Your task to perform on an android device: Search for the best selling books Image 0: 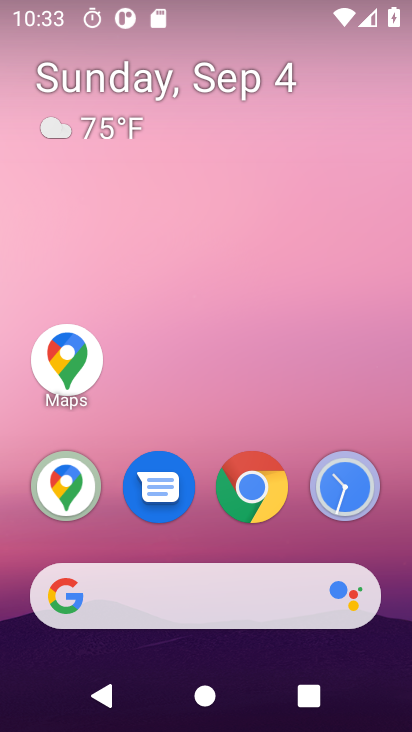
Step 0: click (78, 383)
Your task to perform on an android device: Search for the best selling books Image 1: 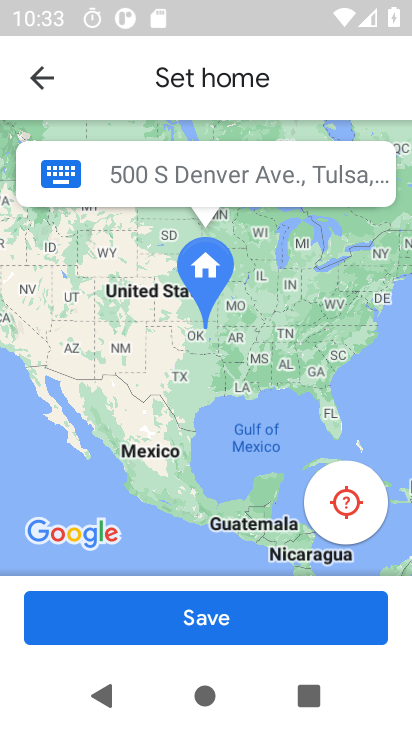
Step 1: task complete